Your task to perform on an android device: clear history in the chrome app Image 0: 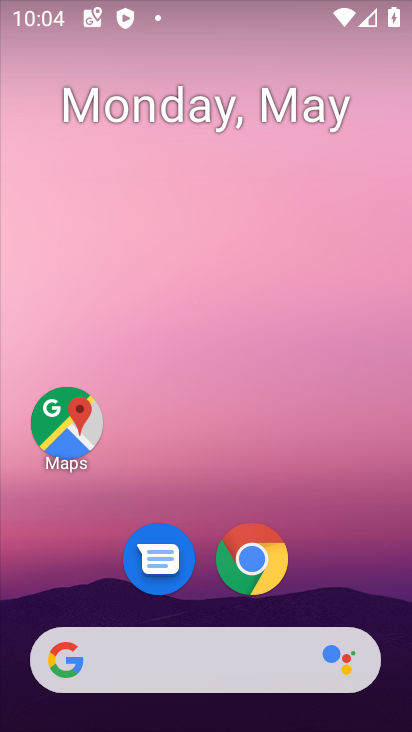
Step 0: click (253, 566)
Your task to perform on an android device: clear history in the chrome app Image 1: 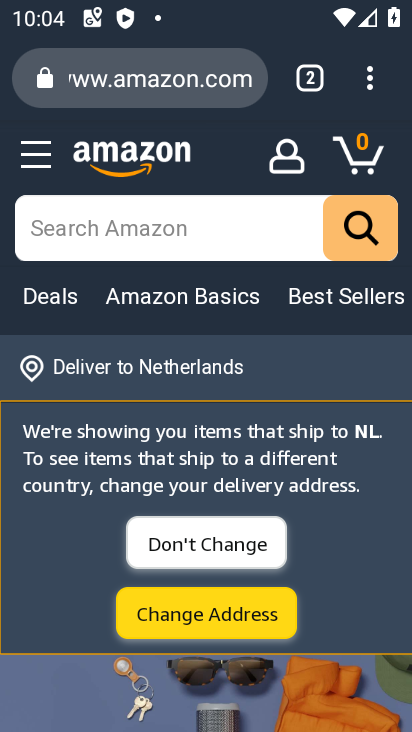
Step 1: click (373, 77)
Your task to perform on an android device: clear history in the chrome app Image 2: 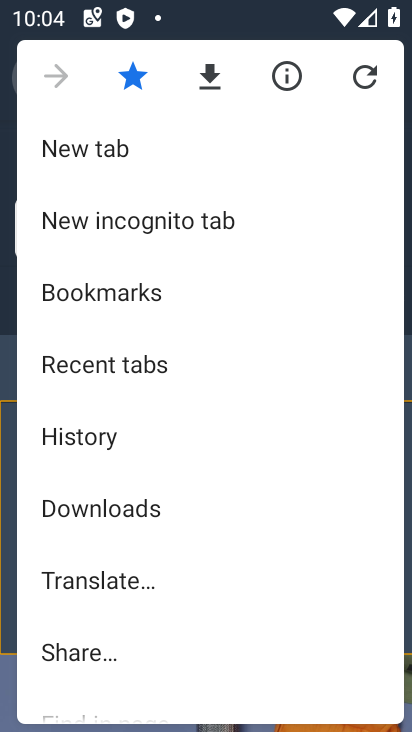
Step 2: click (72, 432)
Your task to perform on an android device: clear history in the chrome app Image 3: 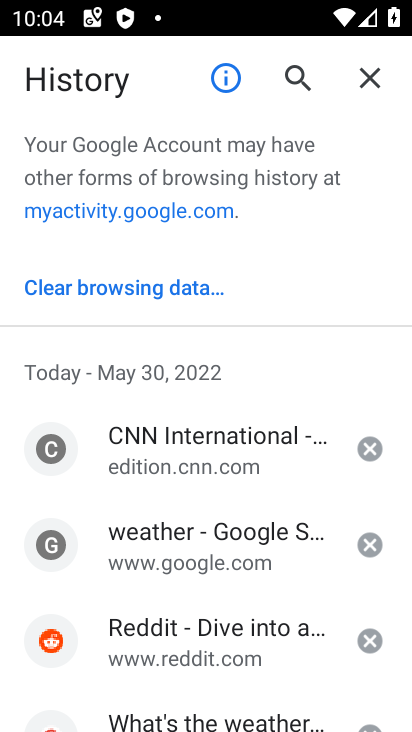
Step 3: click (121, 154)
Your task to perform on an android device: clear history in the chrome app Image 4: 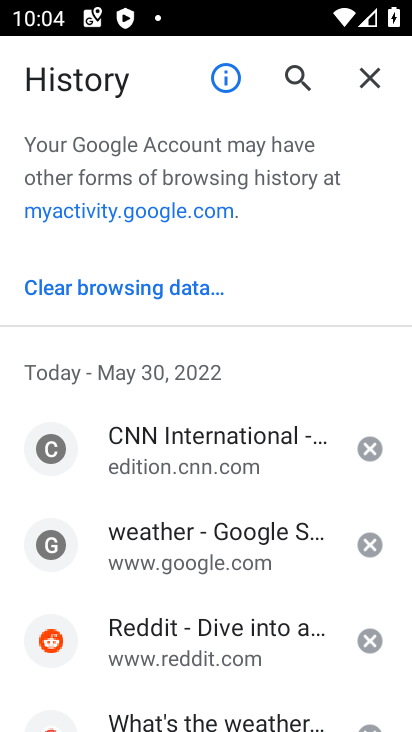
Step 4: click (167, 293)
Your task to perform on an android device: clear history in the chrome app Image 5: 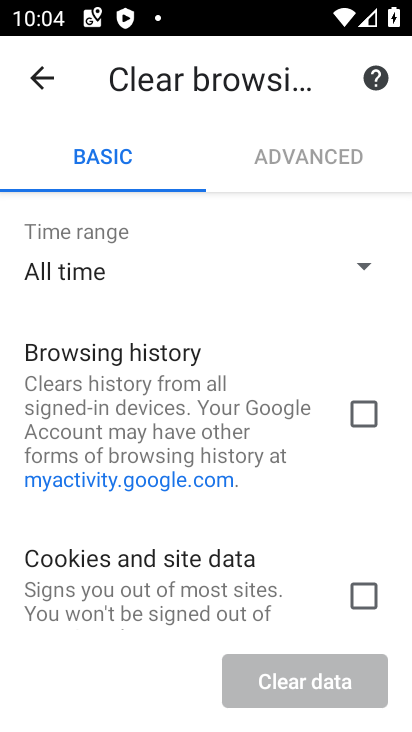
Step 5: click (360, 406)
Your task to perform on an android device: clear history in the chrome app Image 6: 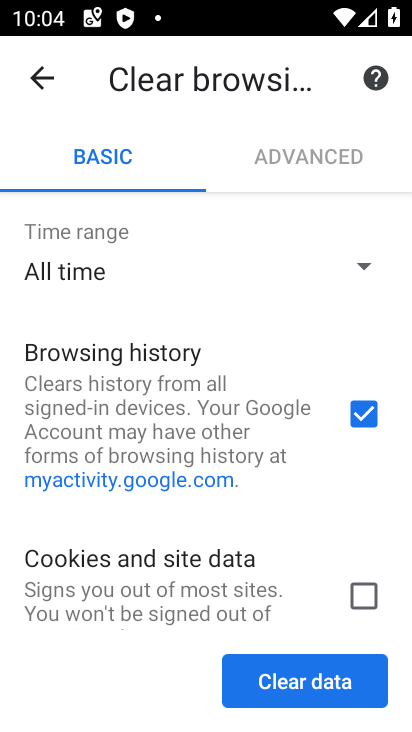
Step 6: click (324, 692)
Your task to perform on an android device: clear history in the chrome app Image 7: 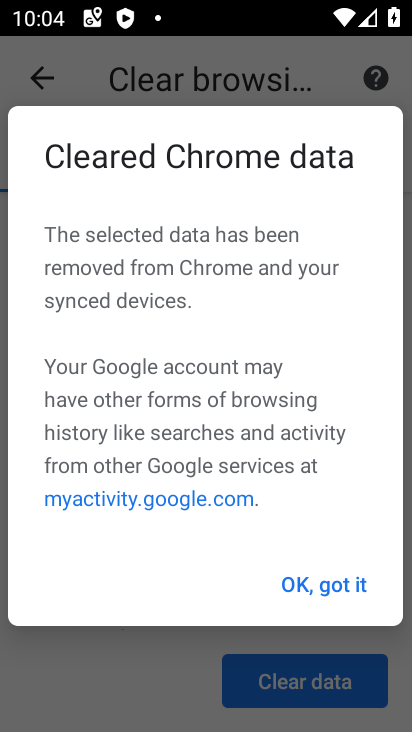
Step 7: click (326, 584)
Your task to perform on an android device: clear history in the chrome app Image 8: 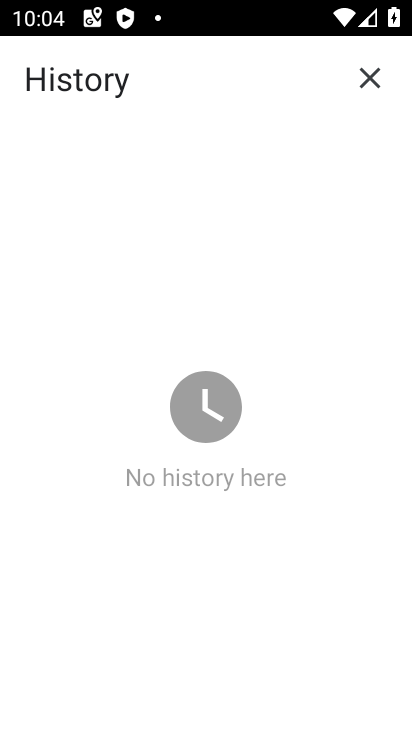
Step 8: task complete